Your task to perform on an android device: open device folders in google photos Image 0: 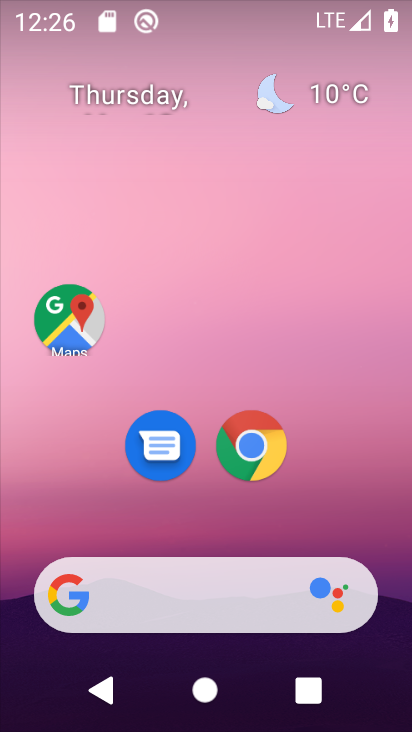
Step 0: drag from (212, 496) to (226, 73)
Your task to perform on an android device: open device folders in google photos Image 1: 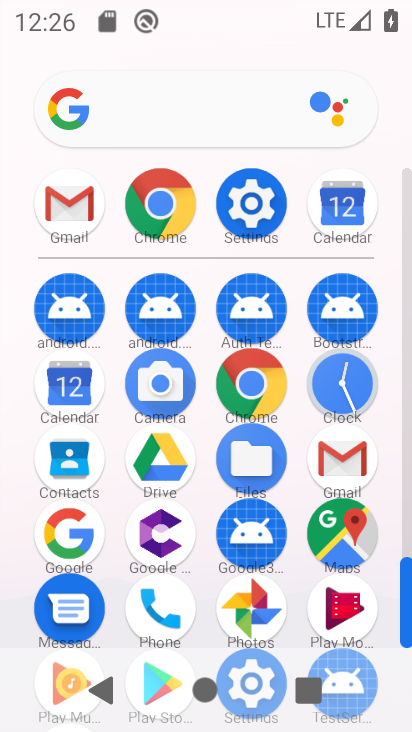
Step 1: click (253, 611)
Your task to perform on an android device: open device folders in google photos Image 2: 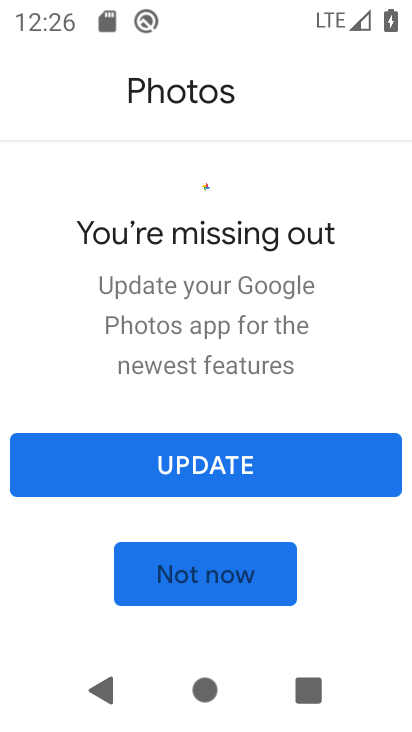
Step 2: click (201, 573)
Your task to perform on an android device: open device folders in google photos Image 3: 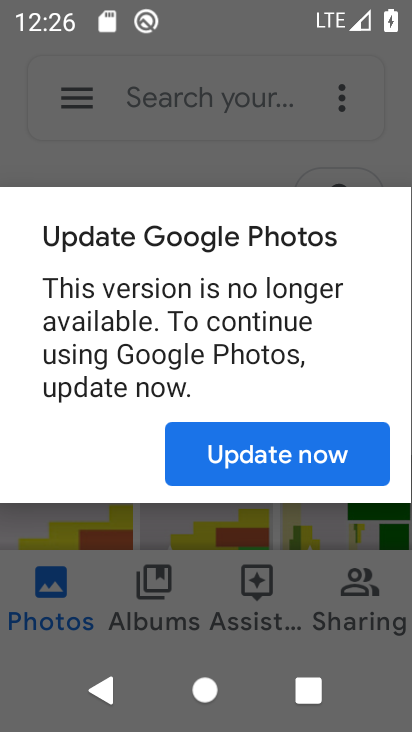
Step 3: click (225, 464)
Your task to perform on an android device: open device folders in google photos Image 4: 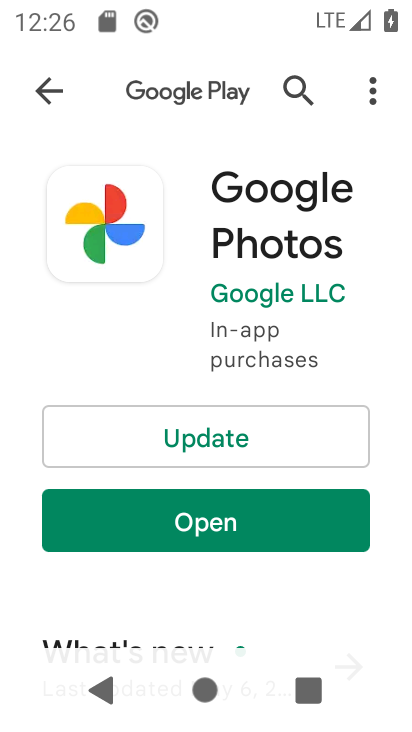
Step 4: click (190, 527)
Your task to perform on an android device: open device folders in google photos Image 5: 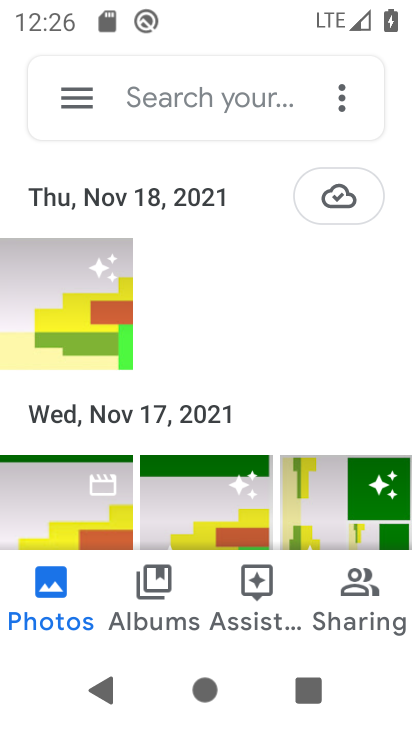
Step 5: click (80, 91)
Your task to perform on an android device: open device folders in google photos Image 6: 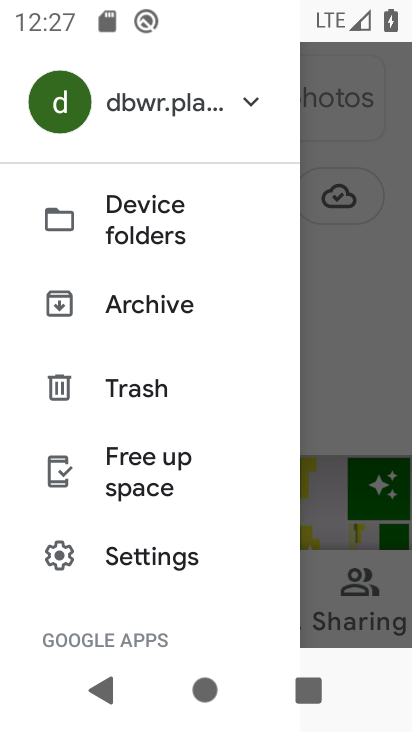
Step 6: click (156, 232)
Your task to perform on an android device: open device folders in google photos Image 7: 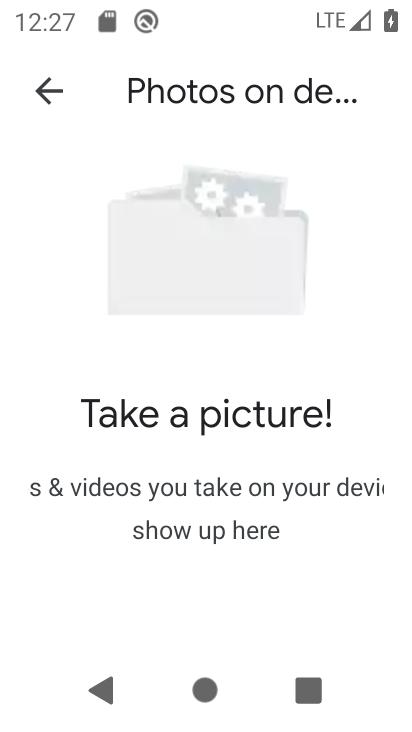
Step 7: task complete